Your task to perform on an android device: Open eBay Image 0: 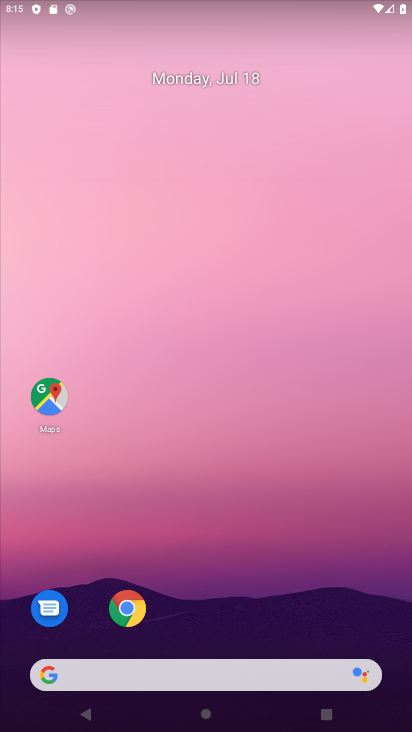
Step 0: click (124, 604)
Your task to perform on an android device: Open eBay Image 1: 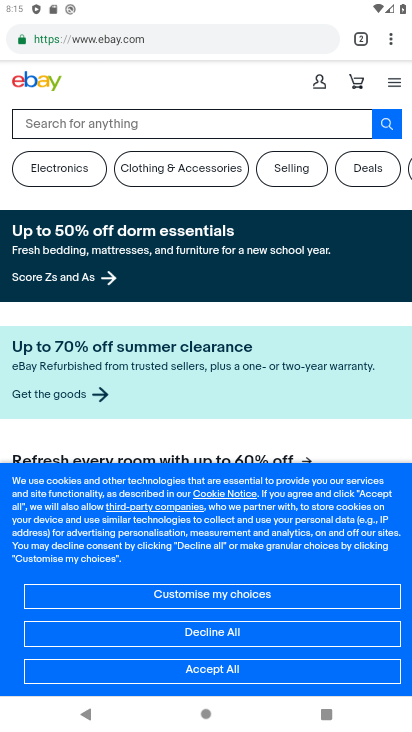
Step 1: task complete